Your task to perform on an android device: See recent photos Image 0: 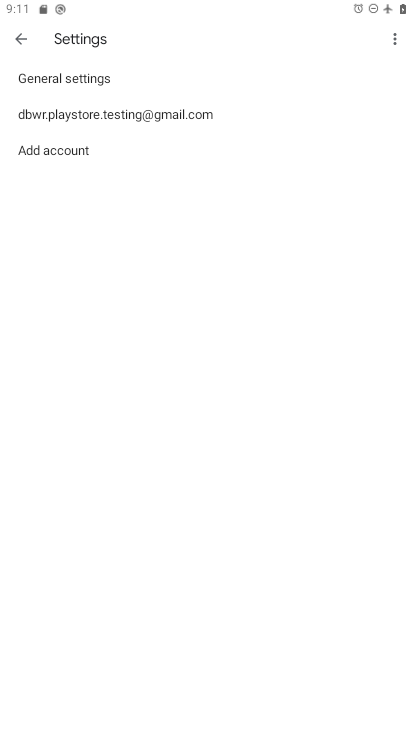
Step 0: press home button
Your task to perform on an android device: See recent photos Image 1: 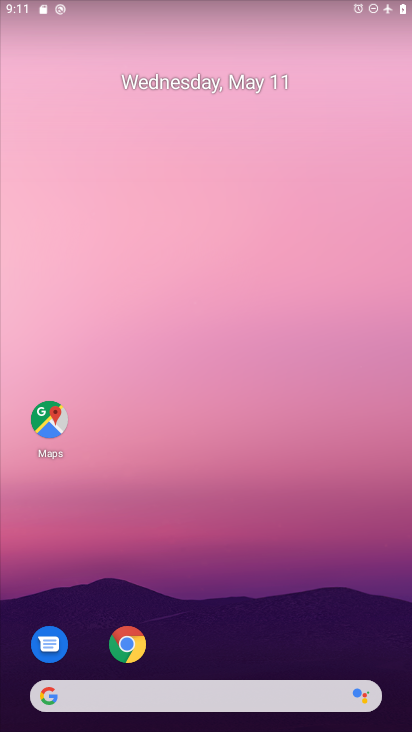
Step 1: drag from (245, 594) to (98, 174)
Your task to perform on an android device: See recent photos Image 2: 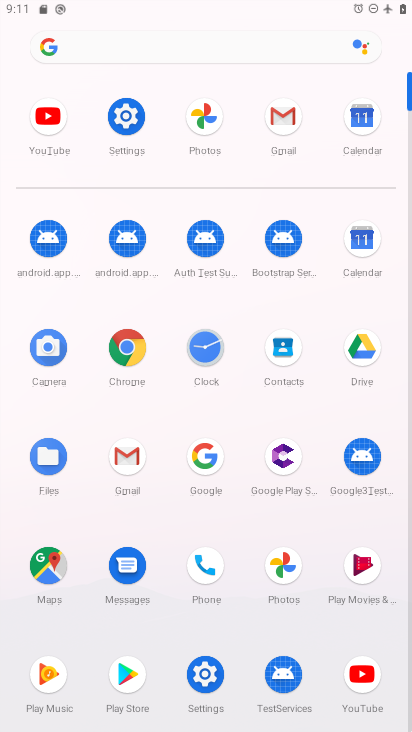
Step 2: click (205, 121)
Your task to perform on an android device: See recent photos Image 3: 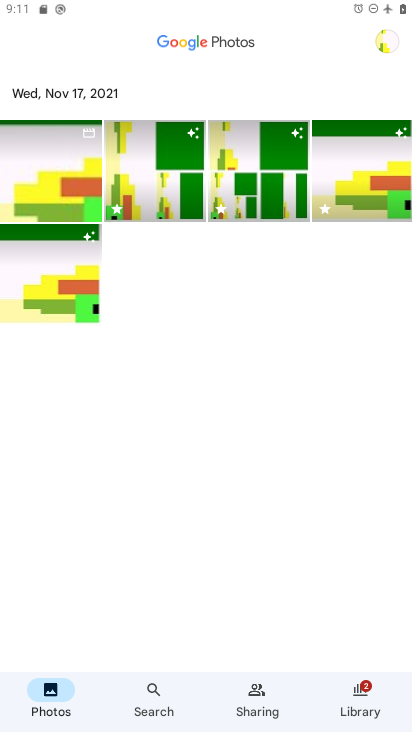
Step 3: task complete